Your task to perform on an android device: open sync settings in chrome Image 0: 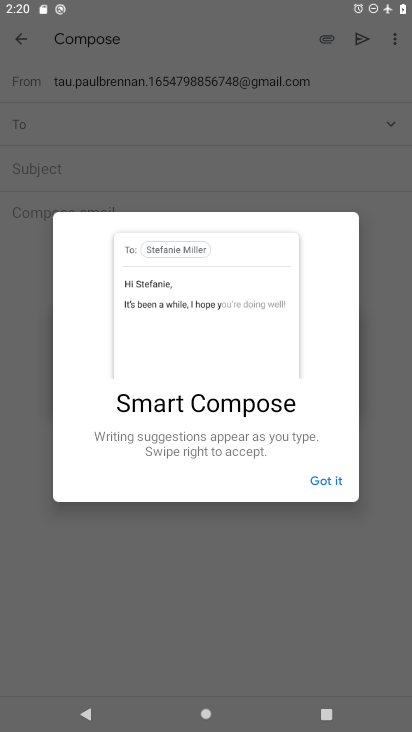
Step 0: press home button
Your task to perform on an android device: open sync settings in chrome Image 1: 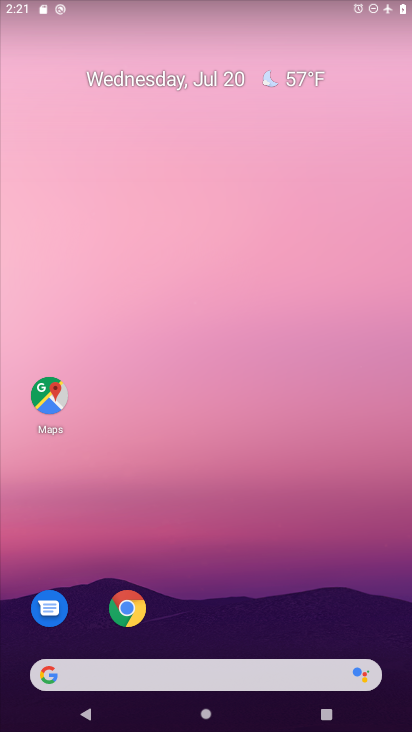
Step 1: click (128, 620)
Your task to perform on an android device: open sync settings in chrome Image 2: 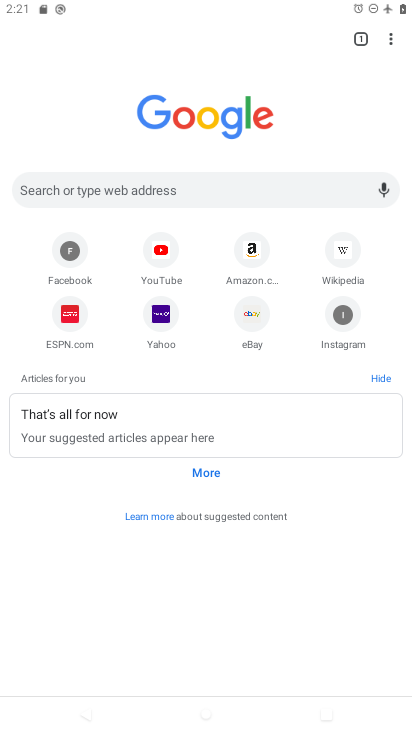
Step 2: click (394, 39)
Your task to perform on an android device: open sync settings in chrome Image 3: 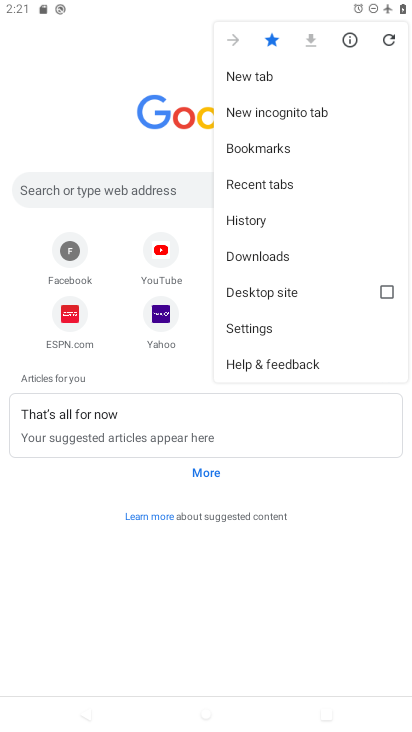
Step 3: click (261, 322)
Your task to perform on an android device: open sync settings in chrome Image 4: 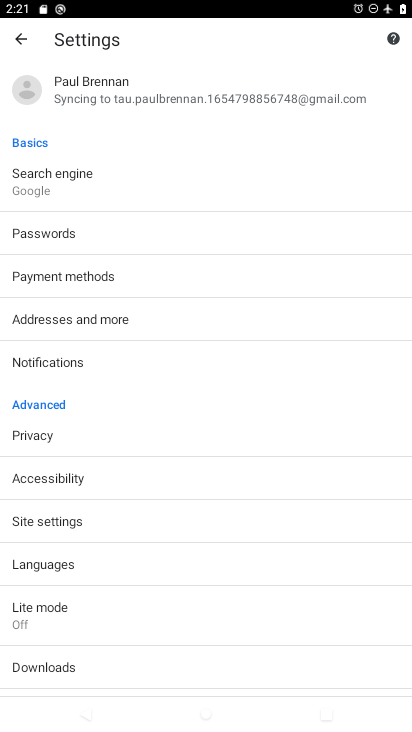
Step 4: click (111, 88)
Your task to perform on an android device: open sync settings in chrome Image 5: 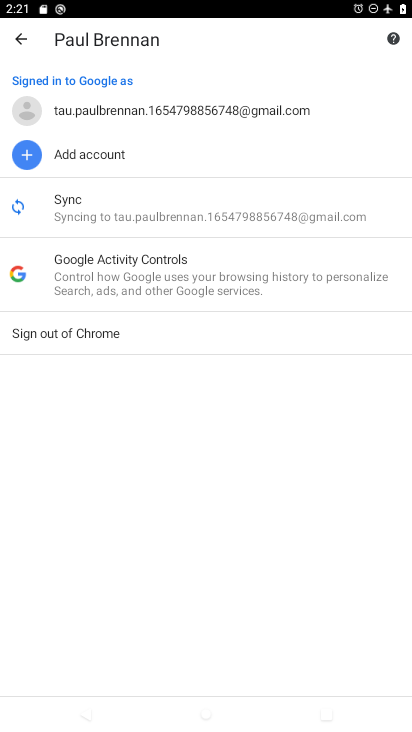
Step 5: task complete